Your task to perform on an android device: turn on improve location accuracy Image 0: 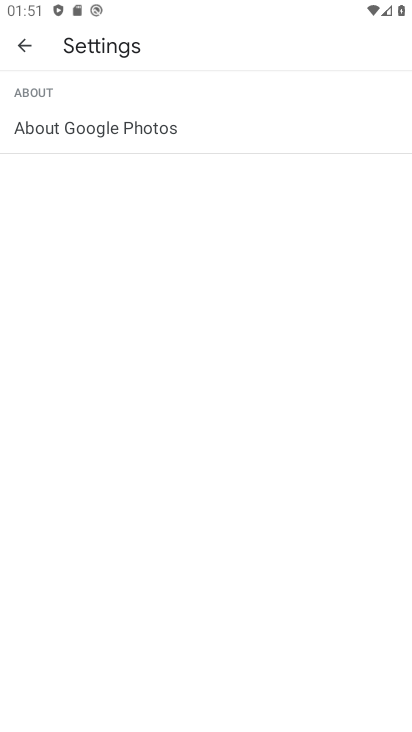
Step 0: press home button
Your task to perform on an android device: turn on improve location accuracy Image 1: 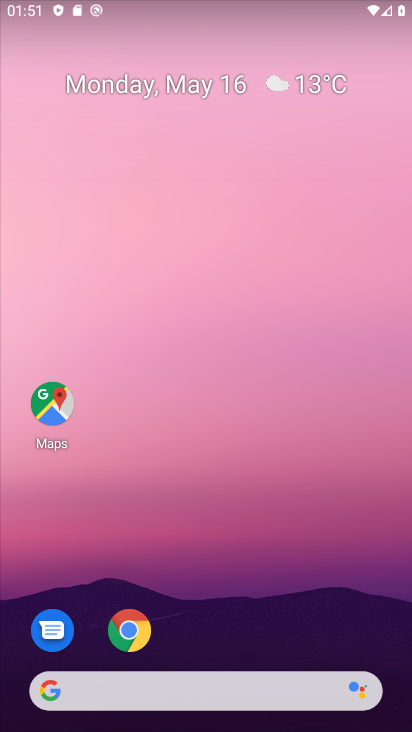
Step 1: drag from (361, 629) to (327, 144)
Your task to perform on an android device: turn on improve location accuracy Image 2: 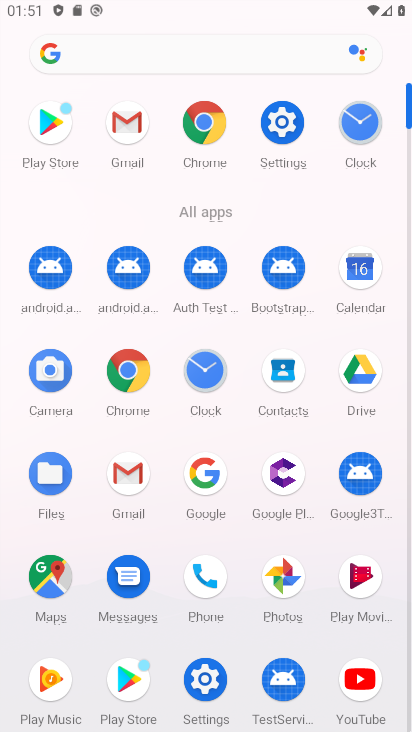
Step 2: click (209, 676)
Your task to perform on an android device: turn on improve location accuracy Image 3: 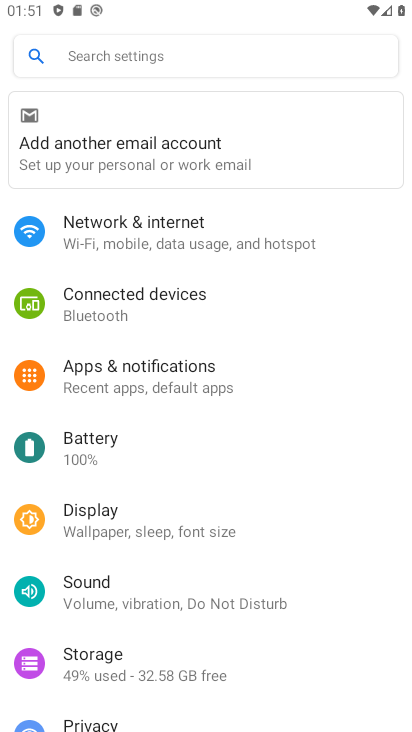
Step 3: drag from (188, 689) to (193, 411)
Your task to perform on an android device: turn on improve location accuracy Image 4: 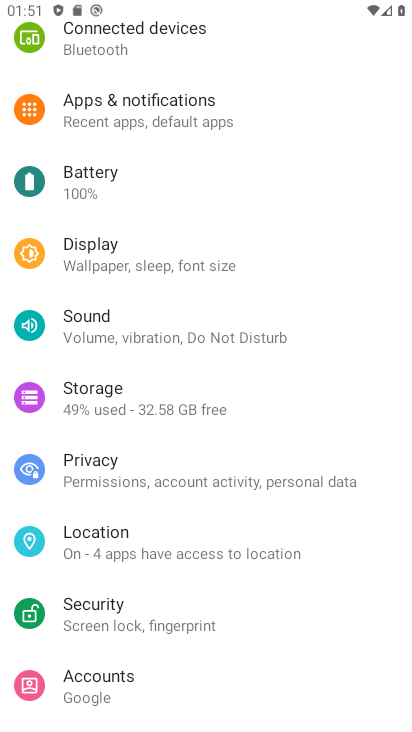
Step 4: click (191, 532)
Your task to perform on an android device: turn on improve location accuracy Image 5: 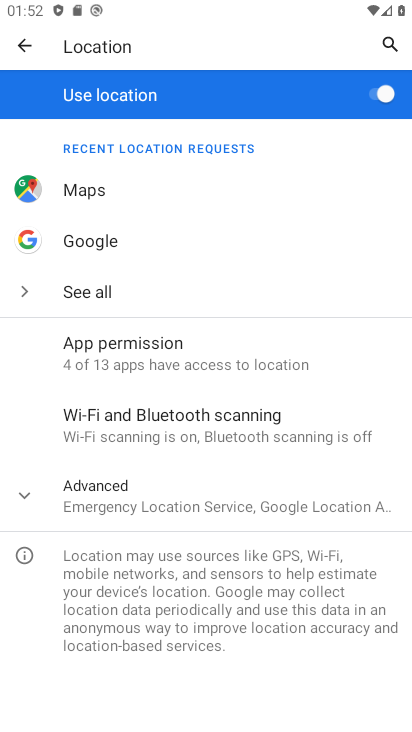
Step 5: click (180, 505)
Your task to perform on an android device: turn on improve location accuracy Image 6: 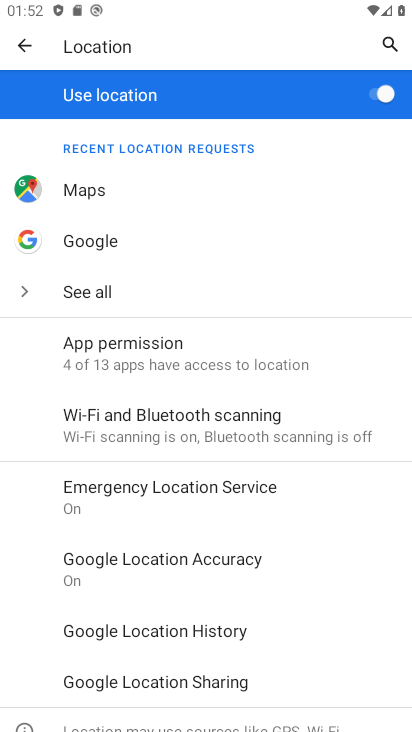
Step 6: click (219, 564)
Your task to perform on an android device: turn on improve location accuracy Image 7: 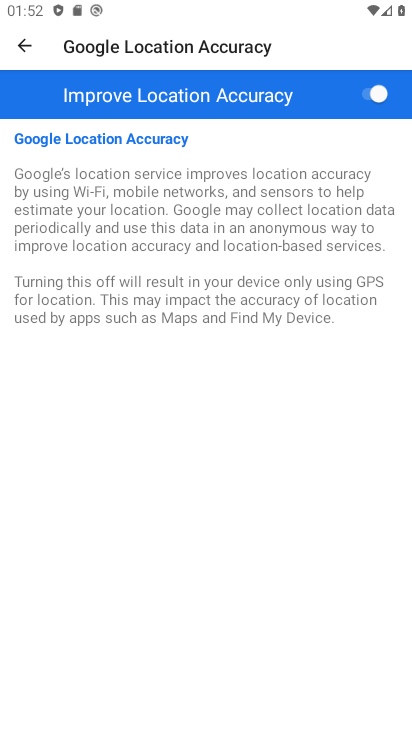
Step 7: task complete